Your task to perform on an android device: Open Maps and search for coffee Image 0: 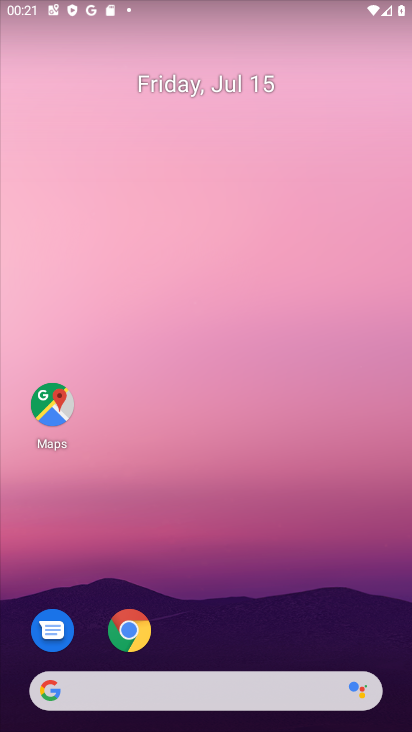
Step 0: click (48, 425)
Your task to perform on an android device: Open Maps and search for coffee Image 1: 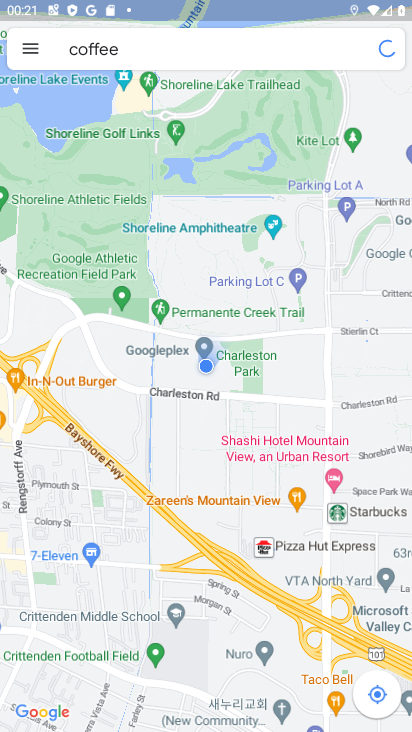
Step 1: task complete